Your task to perform on an android device: What is the recent news? Image 0: 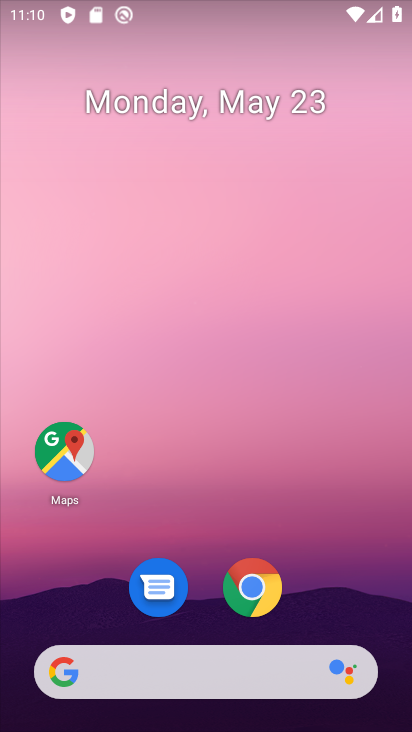
Step 0: drag from (394, 622) to (269, 66)
Your task to perform on an android device: What is the recent news? Image 1: 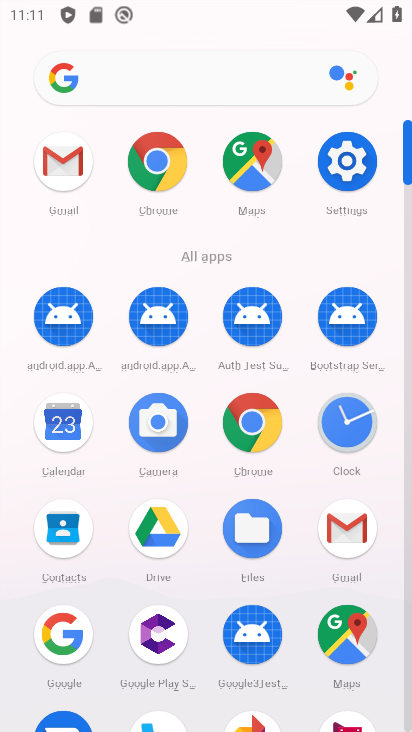
Step 1: click (218, 62)
Your task to perform on an android device: What is the recent news? Image 2: 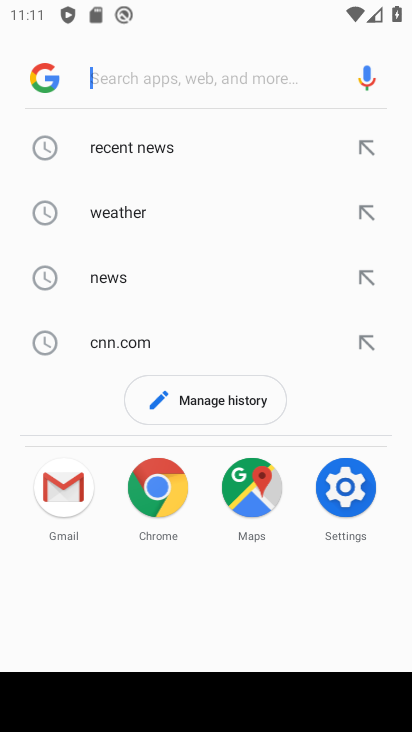
Step 2: click (161, 139)
Your task to perform on an android device: What is the recent news? Image 3: 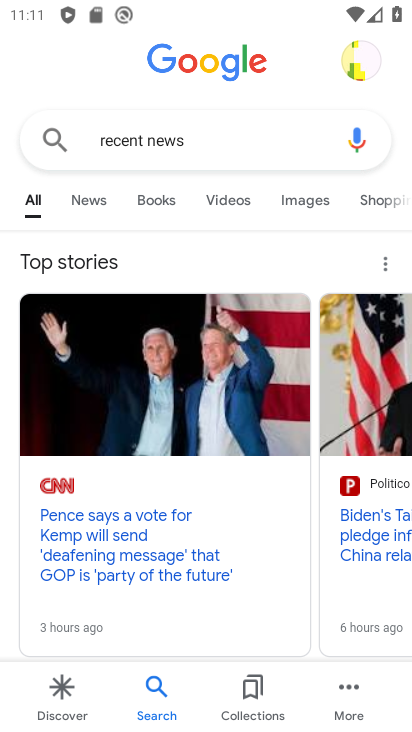
Step 3: task complete